Your task to perform on an android device: move a message to another label in the gmail app Image 0: 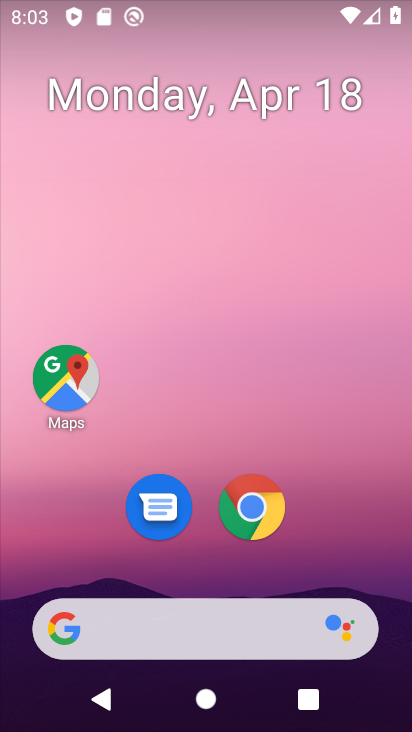
Step 0: drag from (268, 652) to (267, 95)
Your task to perform on an android device: move a message to another label in the gmail app Image 1: 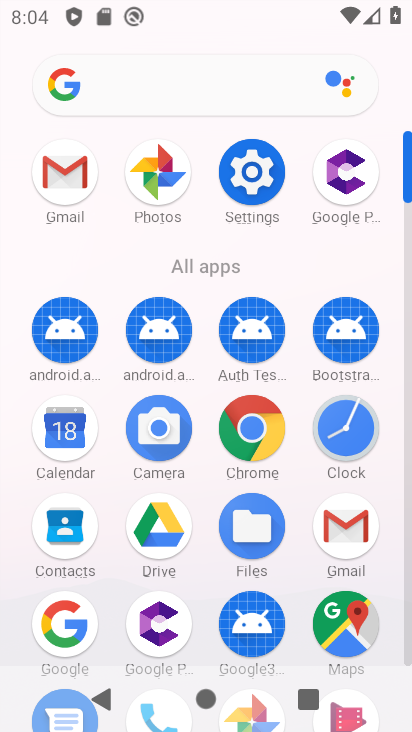
Step 1: click (63, 179)
Your task to perform on an android device: move a message to another label in the gmail app Image 2: 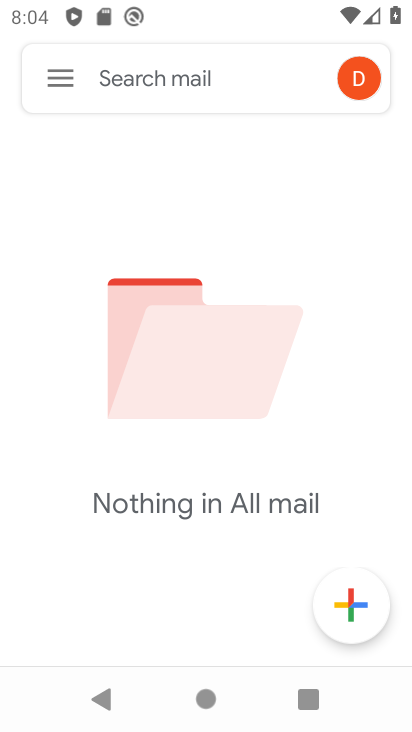
Step 2: click (66, 84)
Your task to perform on an android device: move a message to another label in the gmail app Image 3: 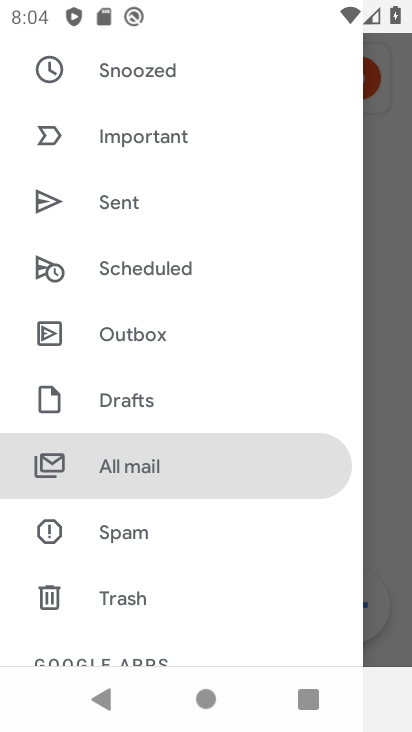
Step 3: drag from (190, 309) to (155, 557)
Your task to perform on an android device: move a message to another label in the gmail app Image 4: 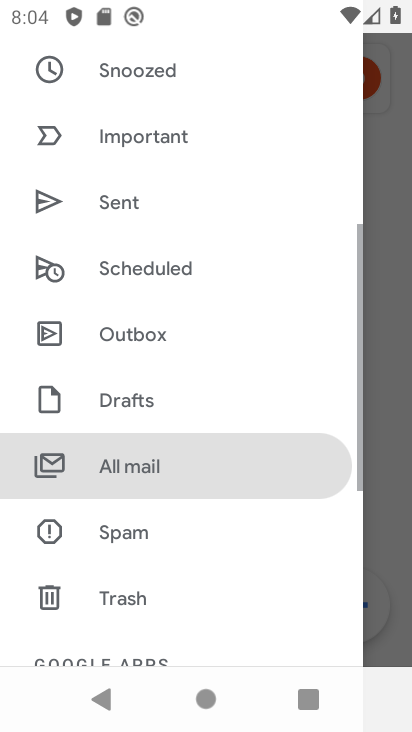
Step 4: drag from (184, 201) to (215, 601)
Your task to perform on an android device: move a message to another label in the gmail app Image 5: 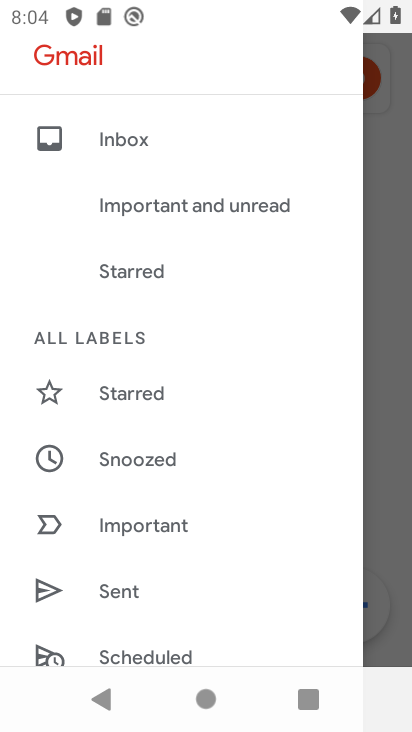
Step 5: click (165, 133)
Your task to perform on an android device: move a message to another label in the gmail app Image 6: 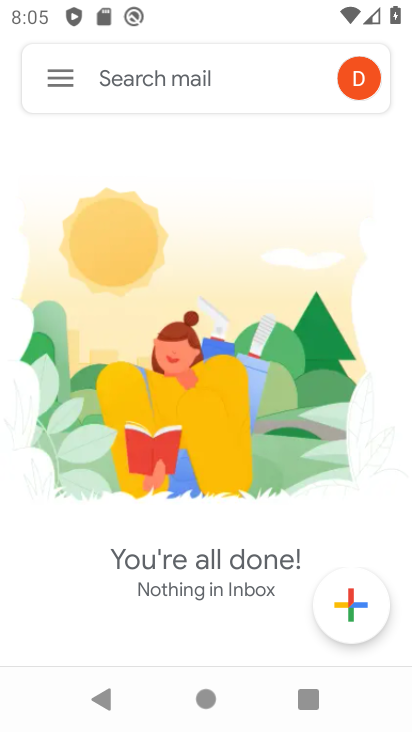
Step 6: task complete